Your task to perform on an android device: turn off airplane mode Image 0: 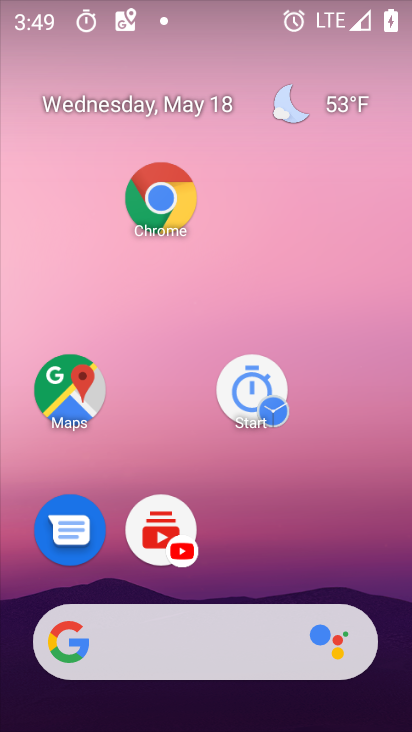
Step 0: drag from (241, 636) to (236, 71)
Your task to perform on an android device: turn off airplane mode Image 1: 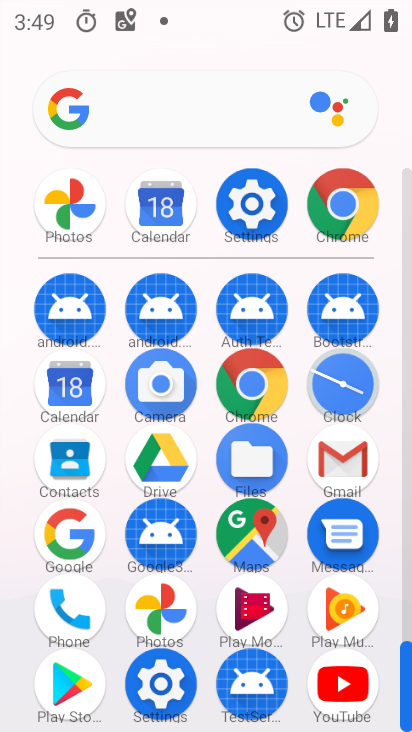
Step 1: click (233, 209)
Your task to perform on an android device: turn off airplane mode Image 2: 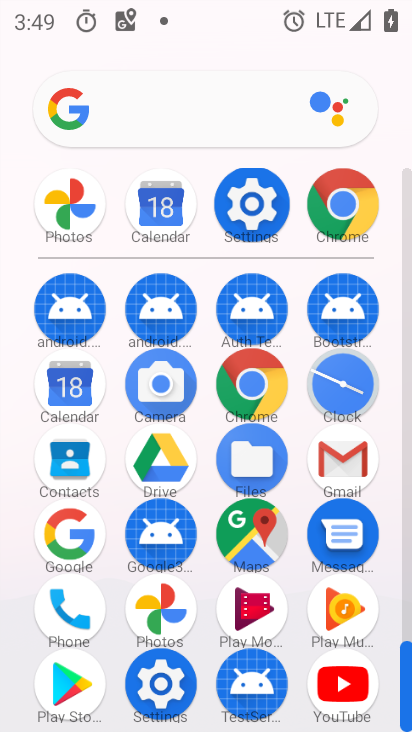
Step 2: click (233, 209)
Your task to perform on an android device: turn off airplane mode Image 3: 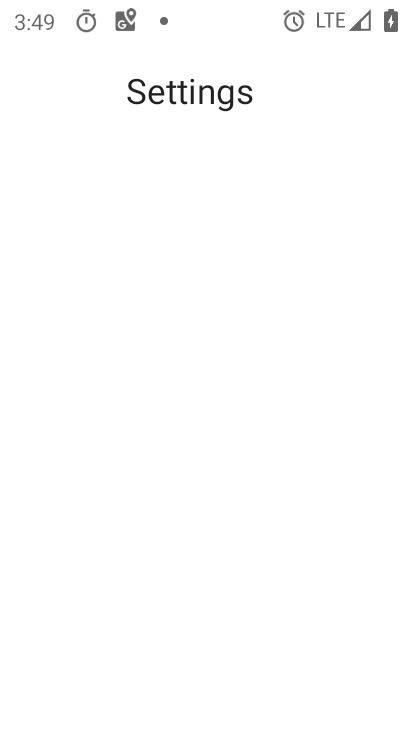
Step 3: click (233, 209)
Your task to perform on an android device: turn off airplane mode Image 4: 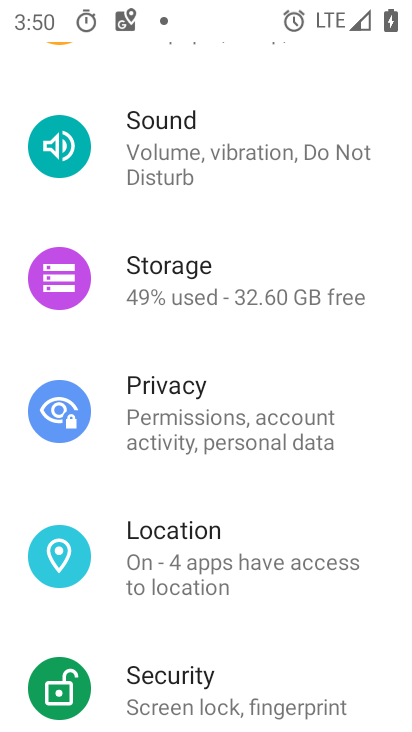
Step 4: drag from (150, 292) to (205, 515)
Your task to perform on an android device: turn off airplane mode Image 5: 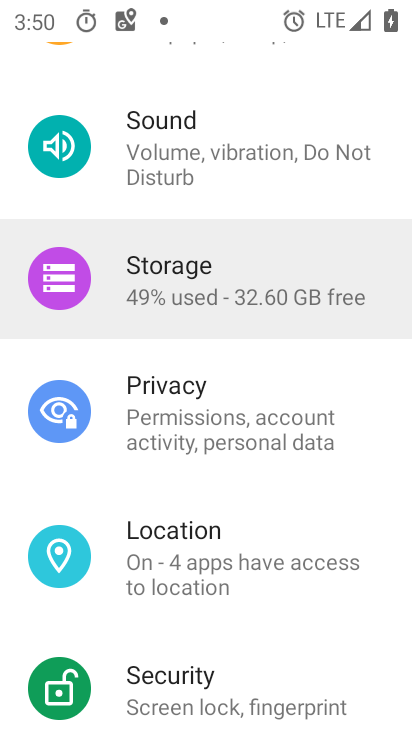
Step 5: drag from (189, 337) to (228, 610)
Your task to perform on an android device: turn off airplane mode Image 6: 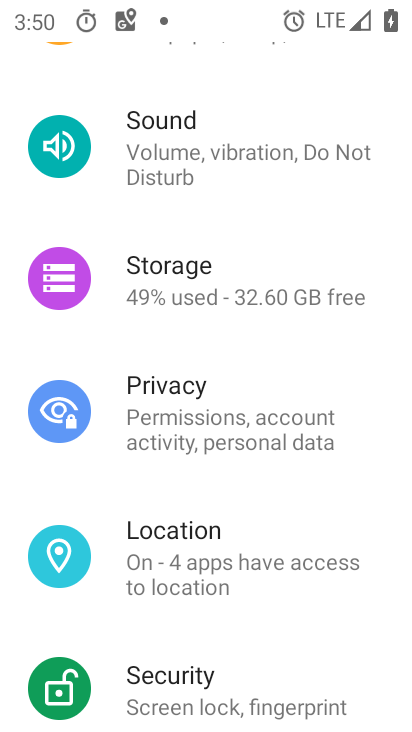
Step 6: drag from (129, 231) to (194, 527)
Your task to perform on an android device: turn off airplane mode Image 7: 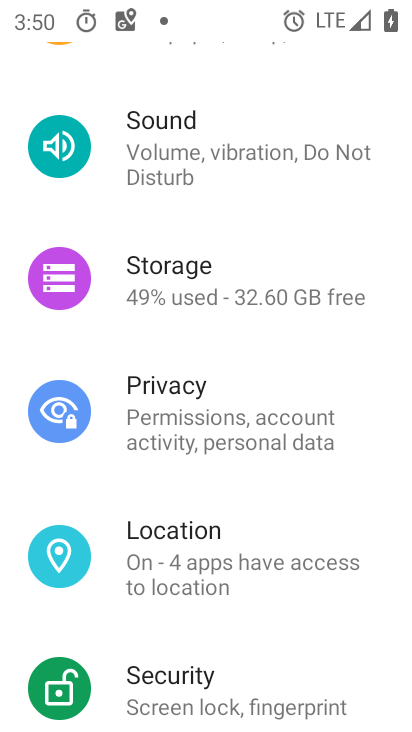
Step 7: drag from (182, 248) to (152, 484)
Your task to perform on an android device: turn off airplane mode Image 8: 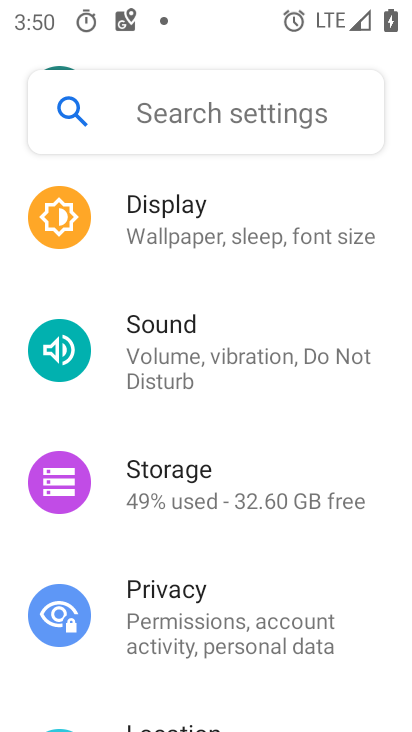
Step 8: drag from (122, 162) to (191, 414)
Your task to perform on an android device: turn off airplane mode Image 9: 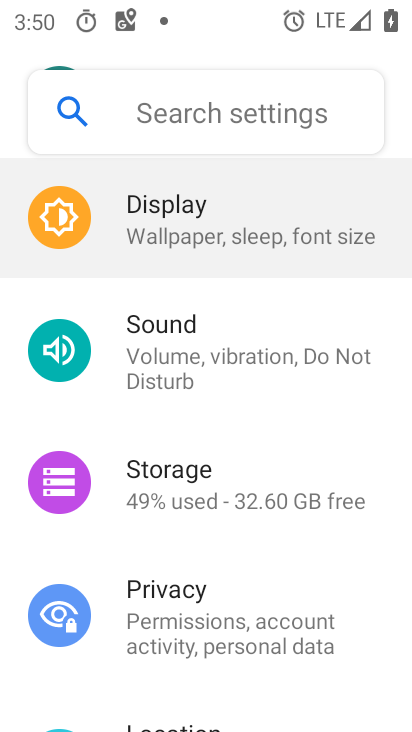
Step 9: drag from (186, 263) to (185, 381)
Your task to perform on an android device: turn off airplane mode Image 10: 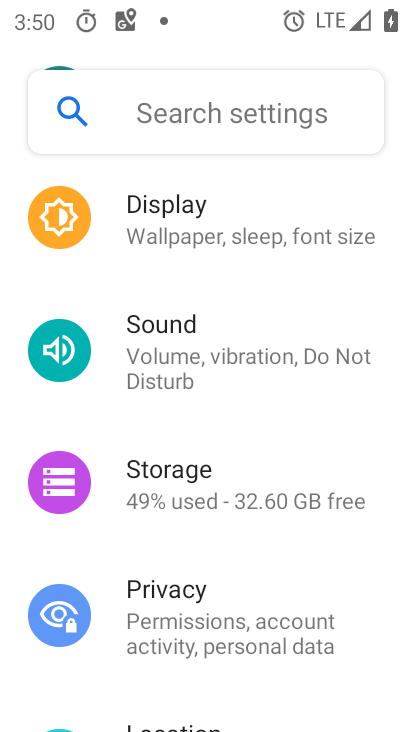
Step 10: drag from (227, 246) to (248, 648)
Your task to perform on an android device: turn off airplane mode Image 11: 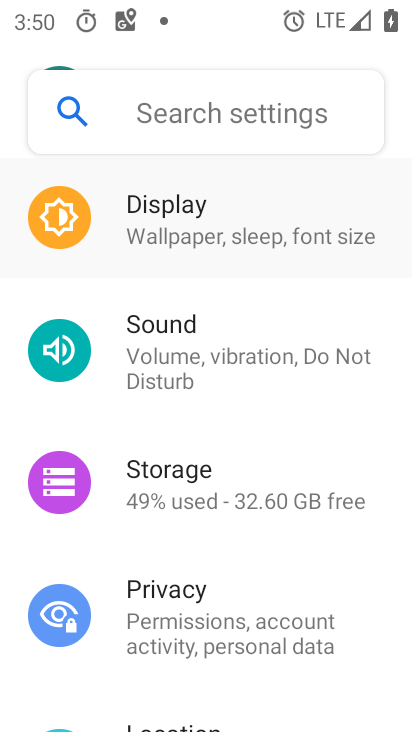
Step 11: drag from (194, 290) to (281, 573)
Your task to perform on an android device: turn off airplane mode Image 12: 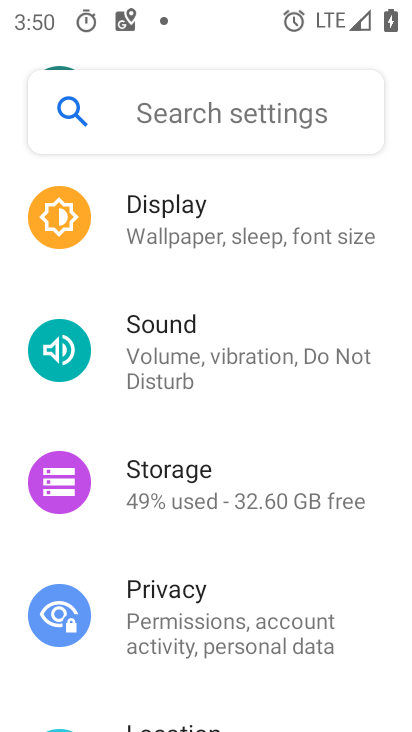
Step 12: drag from (201, 229) to (206, 582)
Your task to perform on an android device: turn off airplane mode Image 13: 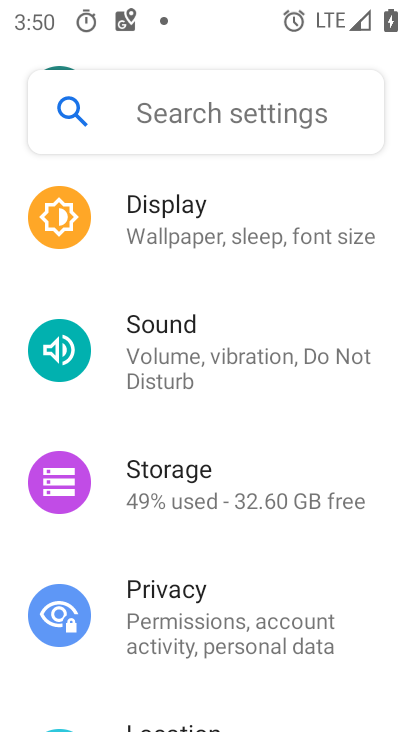
Step 13: drag from (182, 246) to (329, 587)
Your task to perform on an android device: turn off airplane mode Image 14: 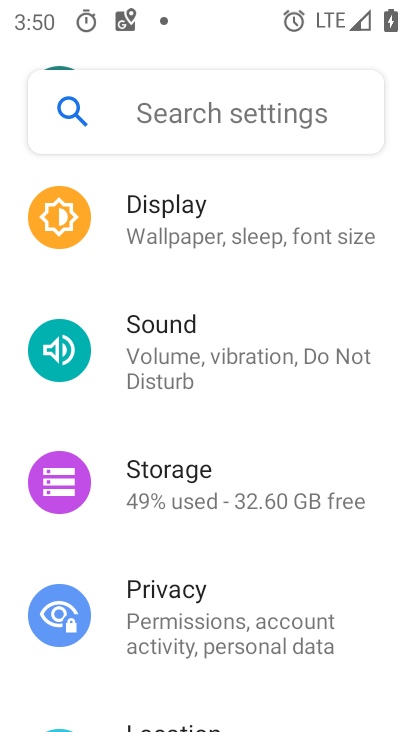
Step 14: drag from (109, 226) to (219, 509)
Your task to perform on an android device: turn off airplane mode Image 15: 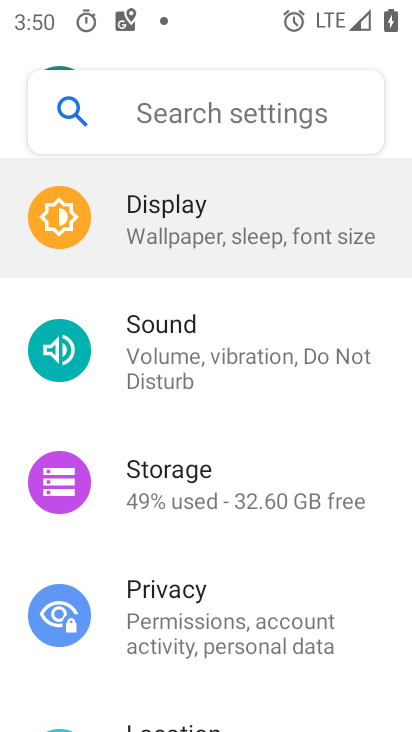
Step 15: drag from (185, 182) to (223, 460)
Your task to perform on an android device: turn off airplane mode Image 16: 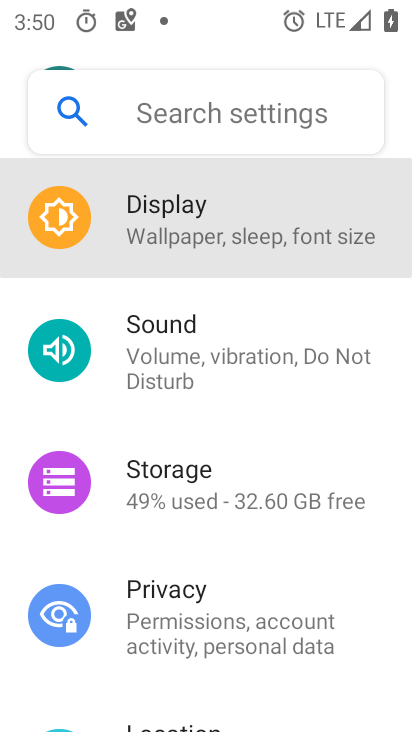
Step 16: drag from (215, 244) to (224, 493)
Your task to perform on an android device: turn off airplane mode Image 17: 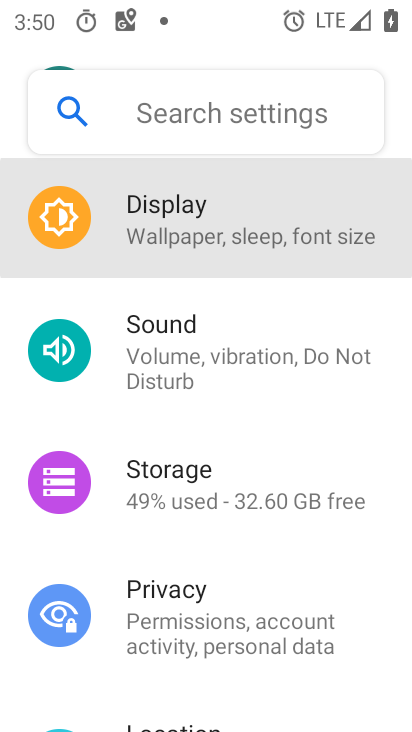
Step 17: drag from (186, 252) to (175, 369)
Your task to perform on an android device: turn off airplane mode Image 18: 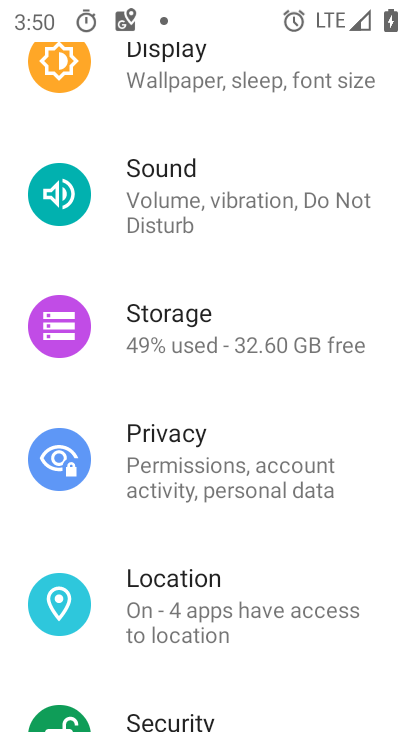
Step 18: drag from (176, 238) to (233, 555)
Your task to perform on an android device: turn off airplane mode Image 19: 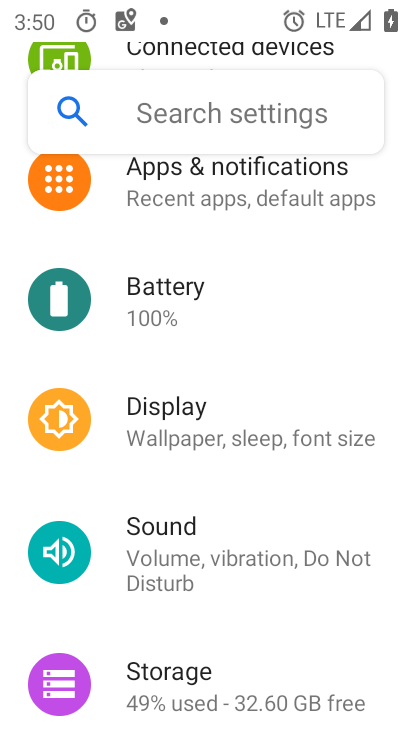
Step 19: drag from (196, 191) to (188, 511)
Your task to perform on an android device: turn off airplane mode Image 20: 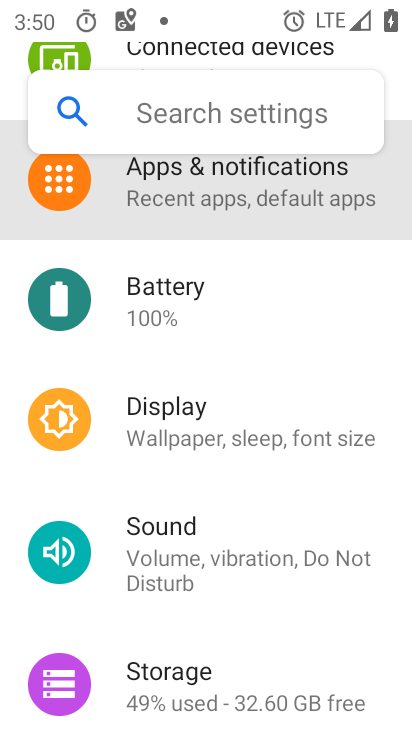
Step 20: drag from (167, 243) to (191, 470)
Your task to perform on an android device: turn off airplane mode Image 21: 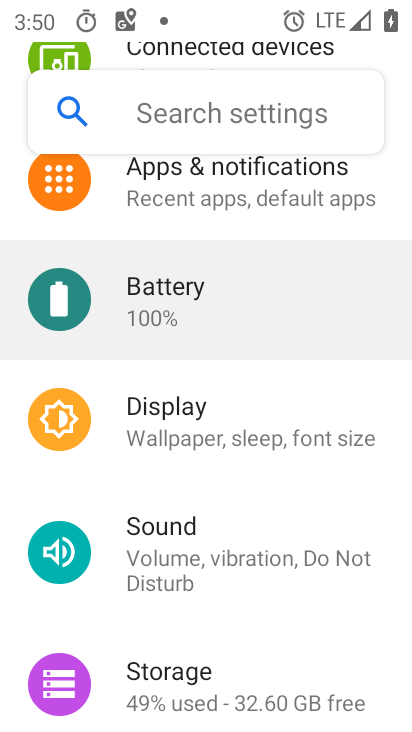
Step 21: drag from (192, 290) to (231, 545)
Your task to perform on an android device: turn off airplane mode Image 22: 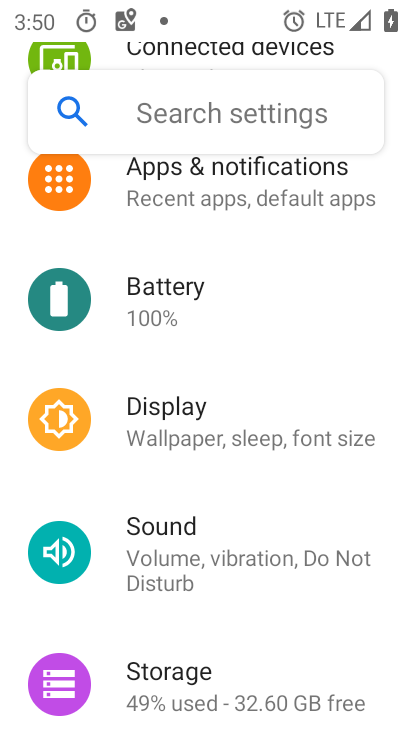
Step 22: drag from (266, 249) to (265, 538)
Your task to perform on an android device: turn off airplane mode Image 23: 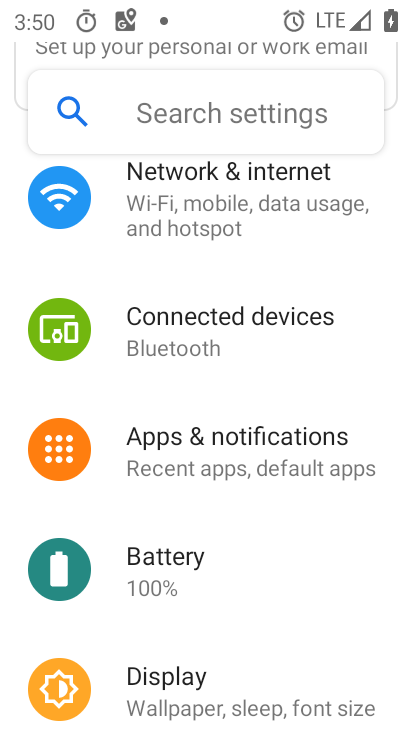
Step 23: drag from (215, 205) to (231, 402)
Your task to perform on an android device: turn off airplane mode Image 24: 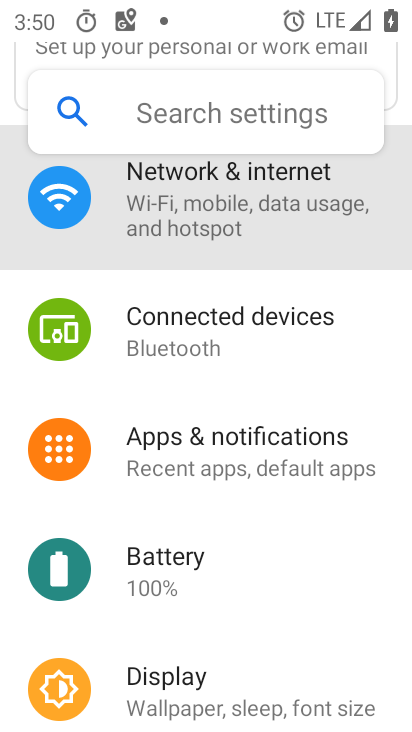
Step 24: drag from (225, 267) to (254, 560)
Your task to perform on an android device: turn off airplane mode Image 25: 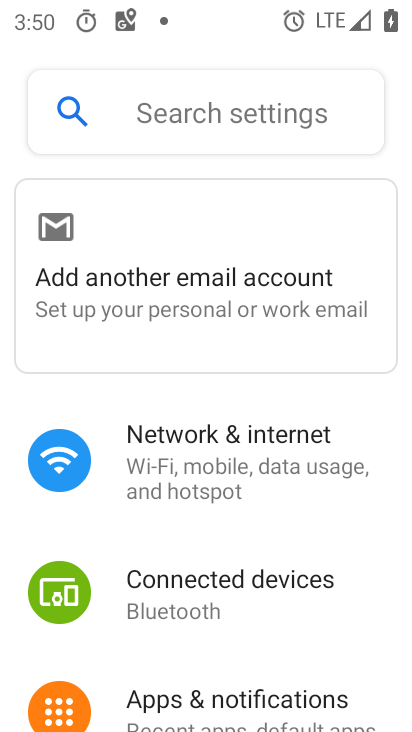
Step 25: click (223, 208)
Your task to perform on an android device: turn off airplane mode Image 26: 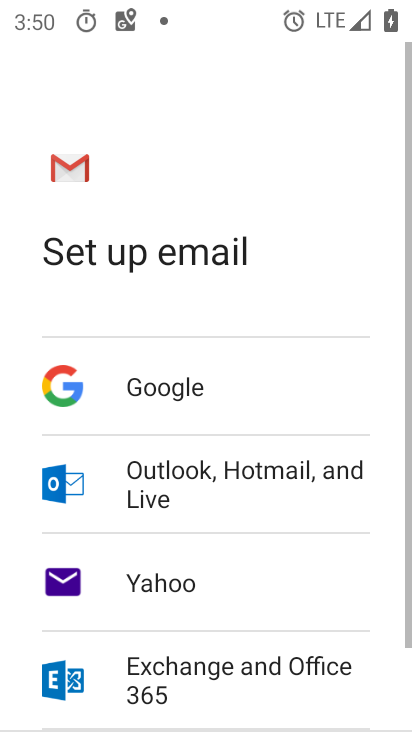
Step 26: click (218, 465)
Your task to perform on an android device: turn off airplane mode Image 27: 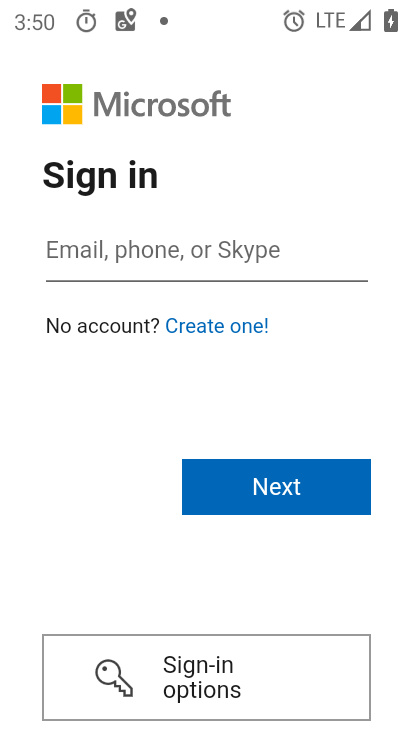
Step 27: task complete